Your task to perform on an android device: open app "TextNow: Call + Text Unlimited" Image 0: 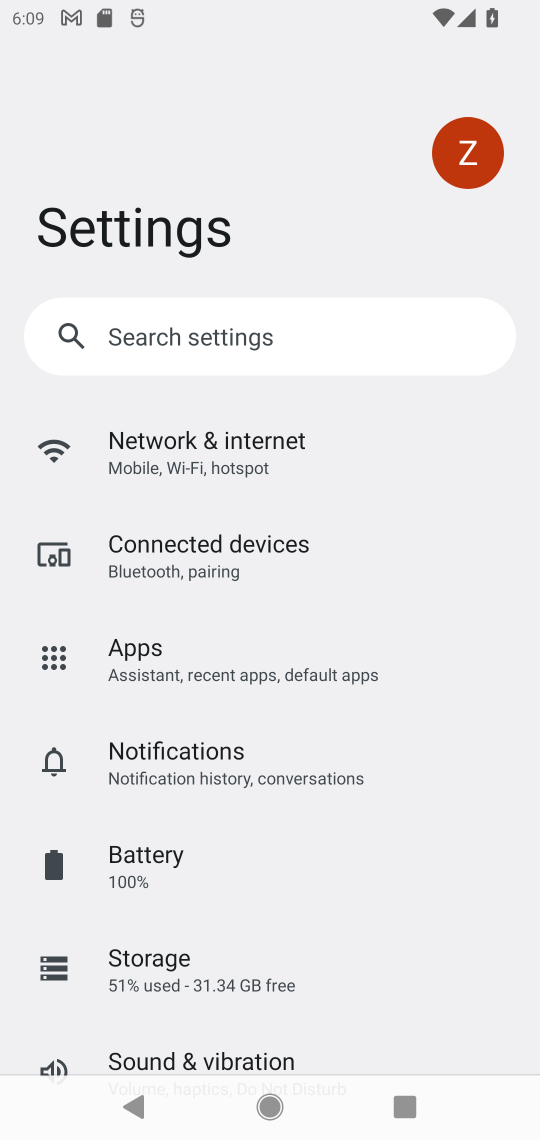
Step 0: press back button
Your task to perform on an android device: open app "TextNow: Call + Text Unlimited" Image 1: 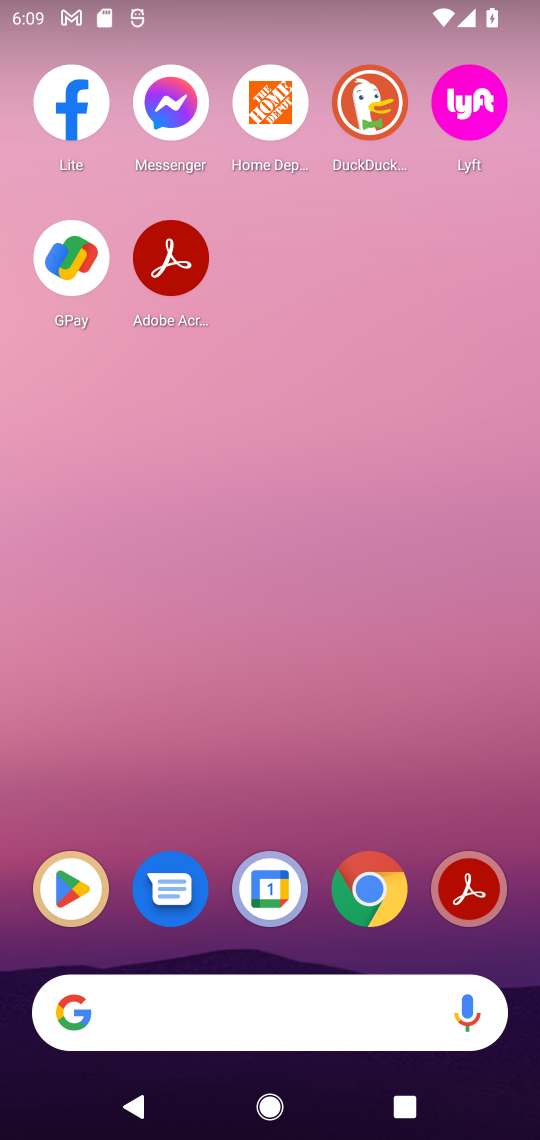
Step 1: drag from (400, 997) to (342, 197)
Your task to perform on an android device: open app "TextNow: Call + Text Unlimited" Image 2: 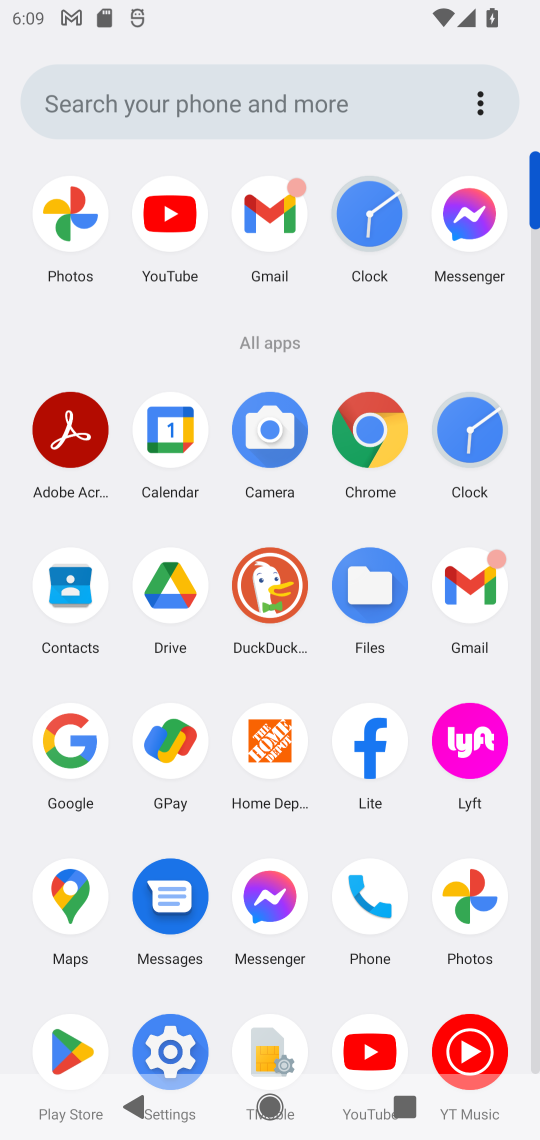
Step 2: drag from (307, 654) to (307, 456)
Your task to perform on an android device: open app "TextNow: Call + Text Unlimited" Image 3: 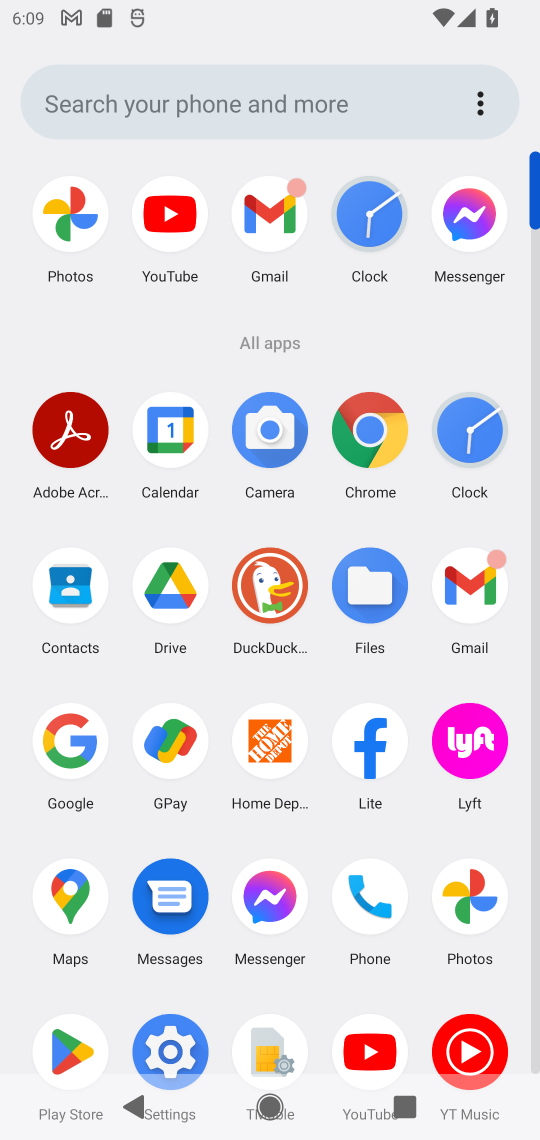
Step 3: drag from (309, 770) to (324, 344)
Your task to perform on an android device: open app "TextNow: Call + Text Unlimited" Image 4: 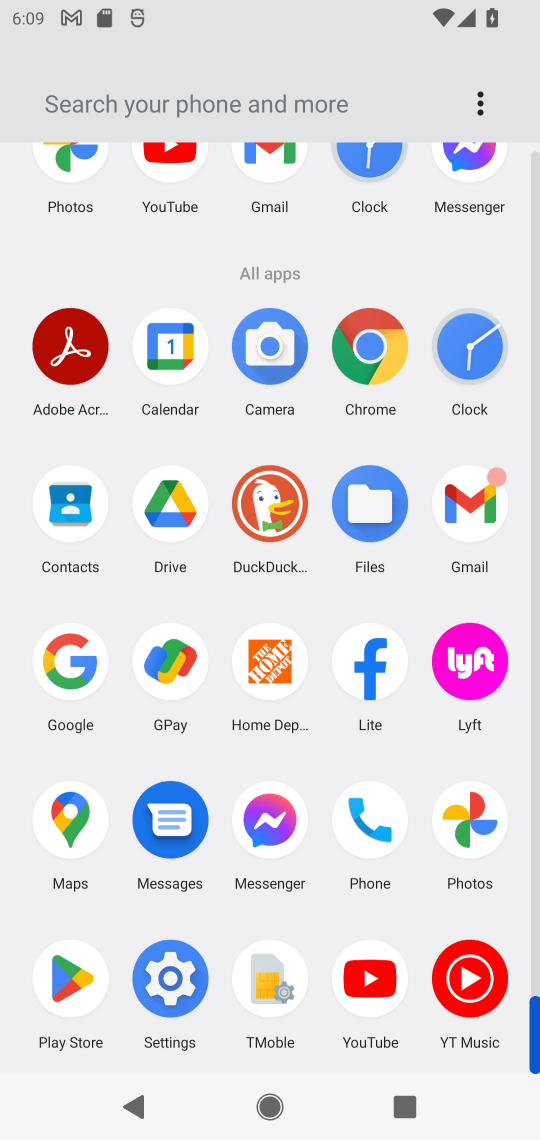
Step 4: drag from (274, 613) to (308, 363)
Your task to perform on an android device: open app "TextNow: Call + Text Unlimited" Image 5: 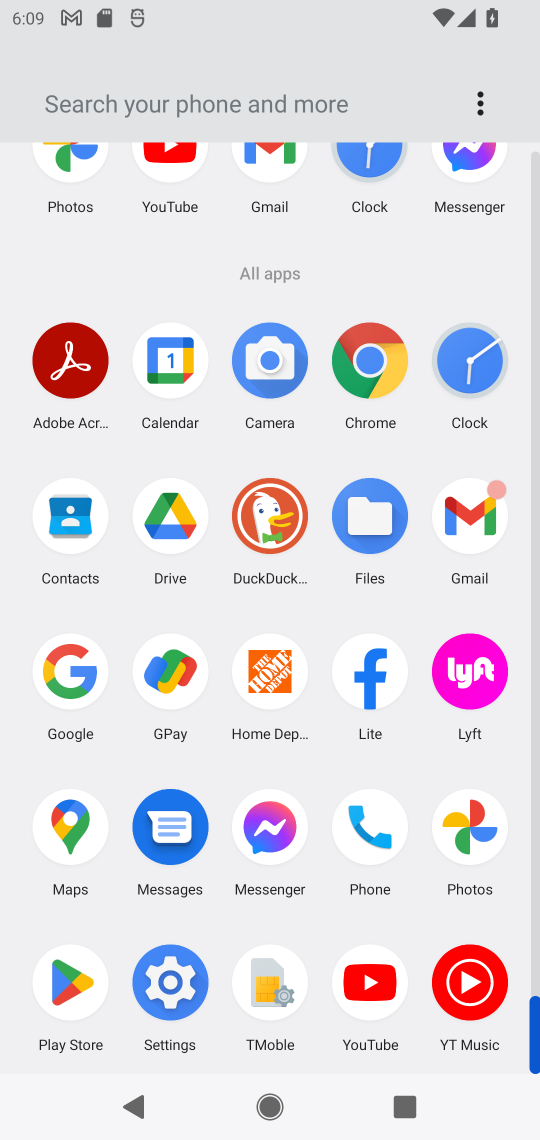
Step 5: click (64, 991)
Your task to perform on an android device: open app "TextNow: Call + Text Unlimited" Image 6: 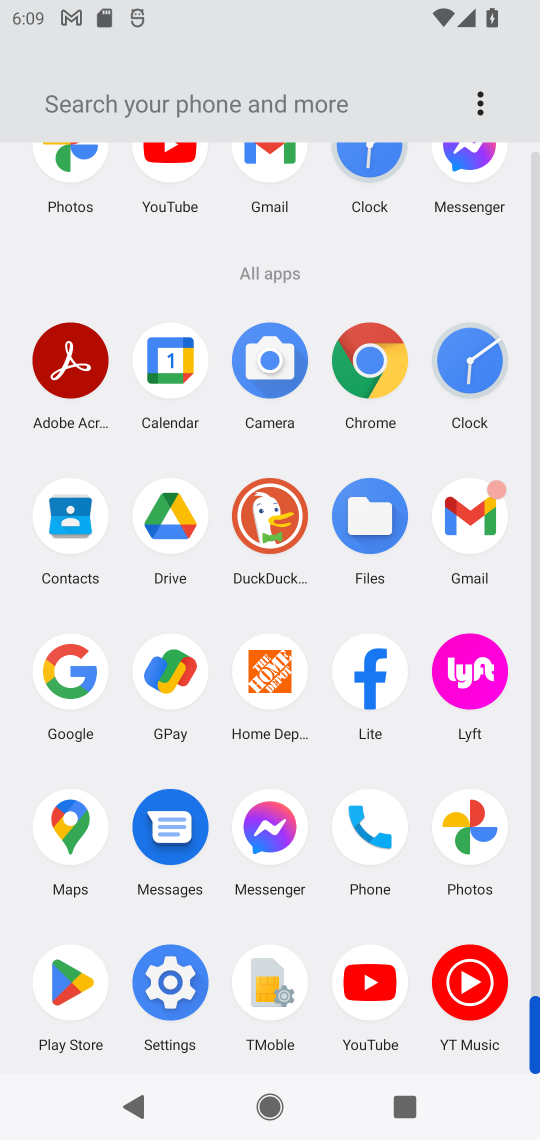
Step 6: click (62, 991)
Your task to perform on an android device: open app "TextNow: Call + Text Unlimited" Image 7: 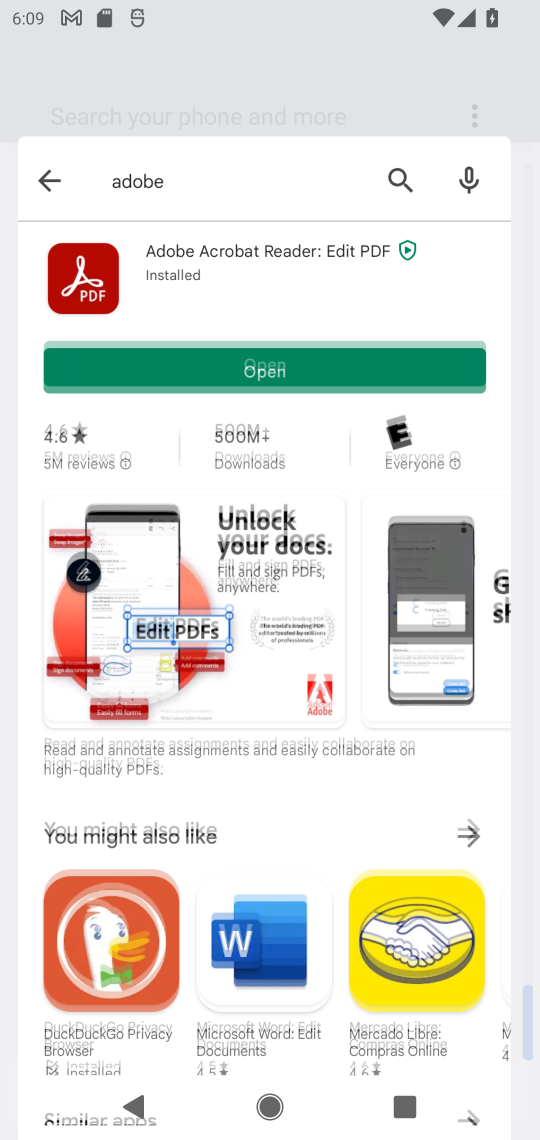
Step 7: click (63, 991)
Your task to perform on an android device: open app "TextNow: Call + Text Unlimited" Image 8: 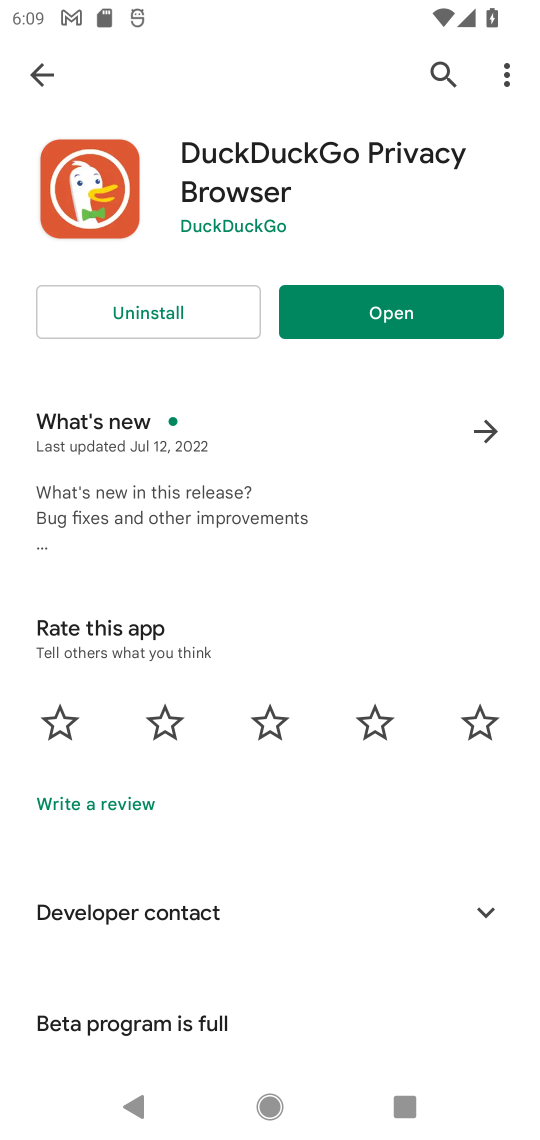
Step 8: click (42, 66)
Your task to perform on an android device: open app "TextNow: Call + Text Unlimited" Image 9: 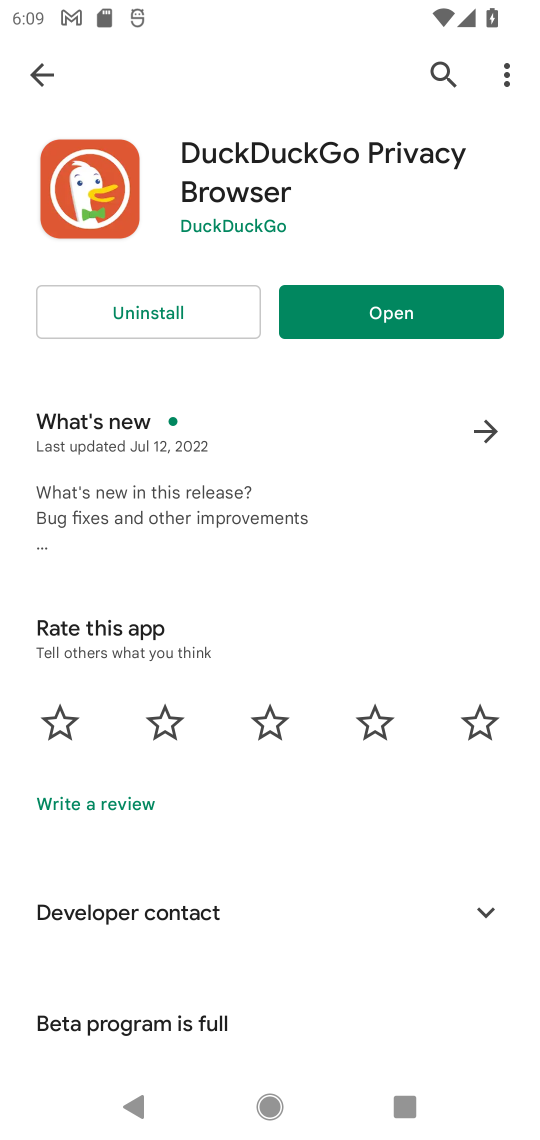
Step 9: click (41, 71)
Your task to perform on an android device: open app "TextNow: Call + Text Unlimited" Image 10: 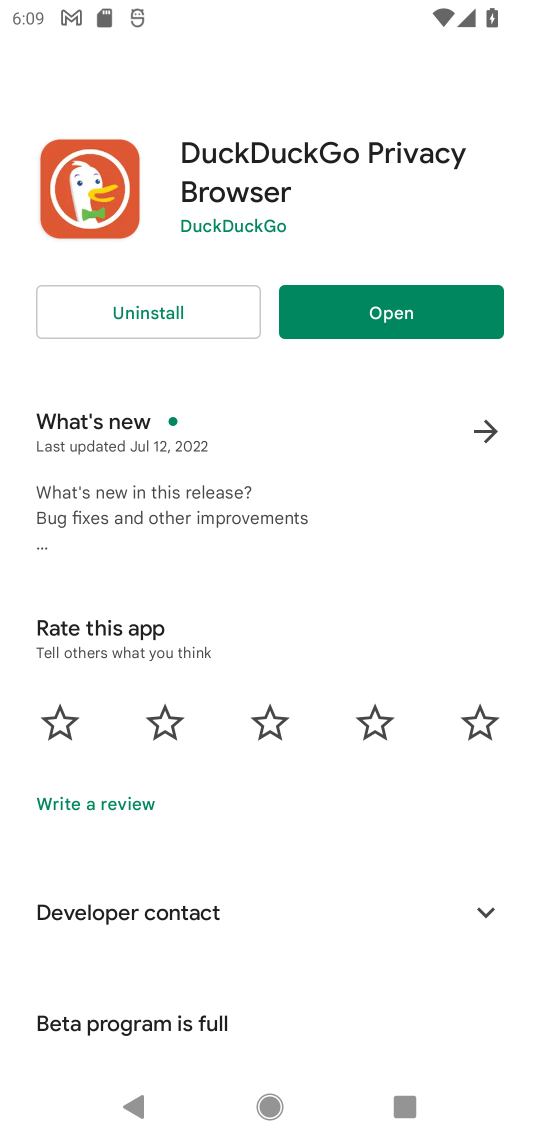
Step 10: click (41, 71)
Your task to perform on an android device: open app "TextNow: Call + Text Unlimited" Image 11: 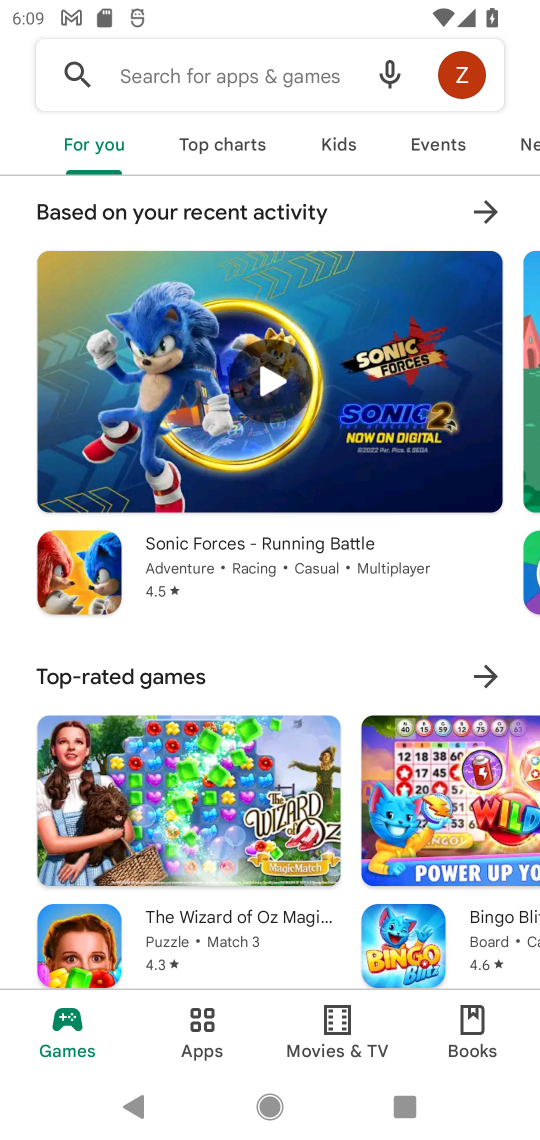
Step 11: click (167, 68)
Your task to perform on an android device: open app "TextNow: Call + Text Unlimited" Image 12: 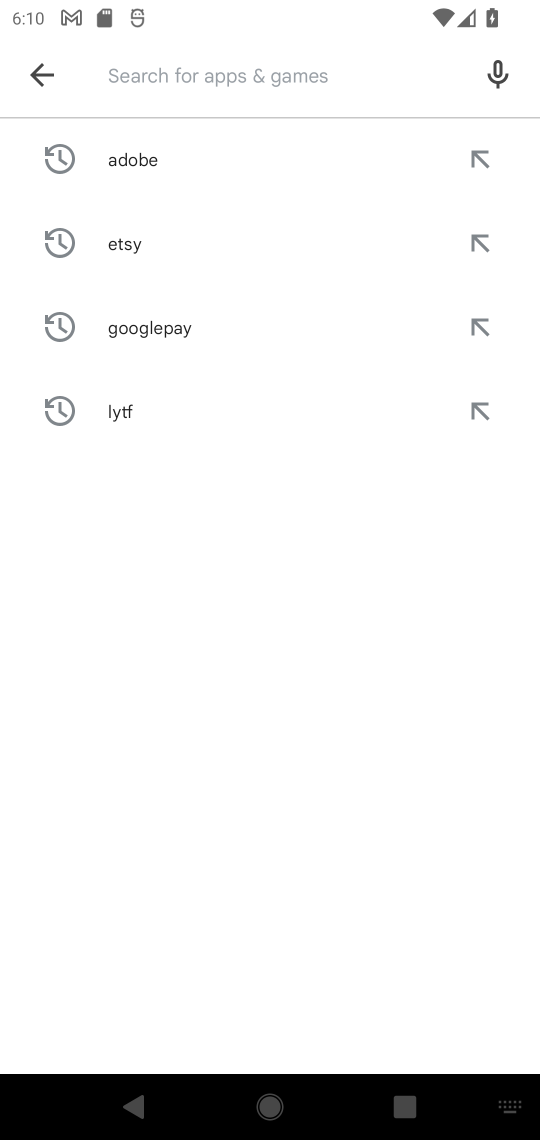
Step 12: type "Text"
Your task to perform on an android device: open app "TextNow: Call + Text Unlimited" Image 13: 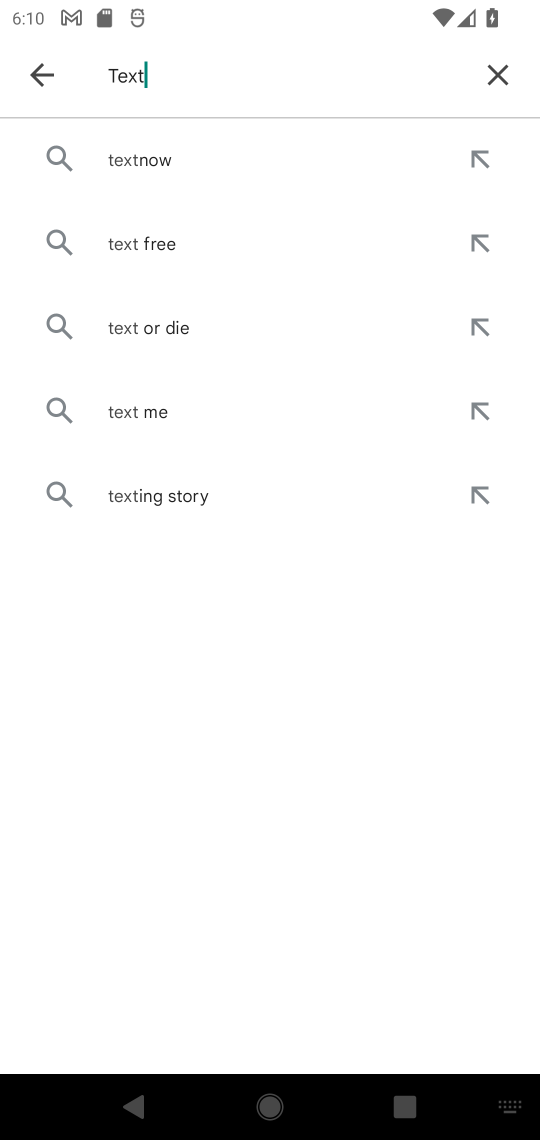
Step 13: click (154, 168)
Your task to perform on an android device: open app "TextNow: Call + Text Unlimited" Image 14: 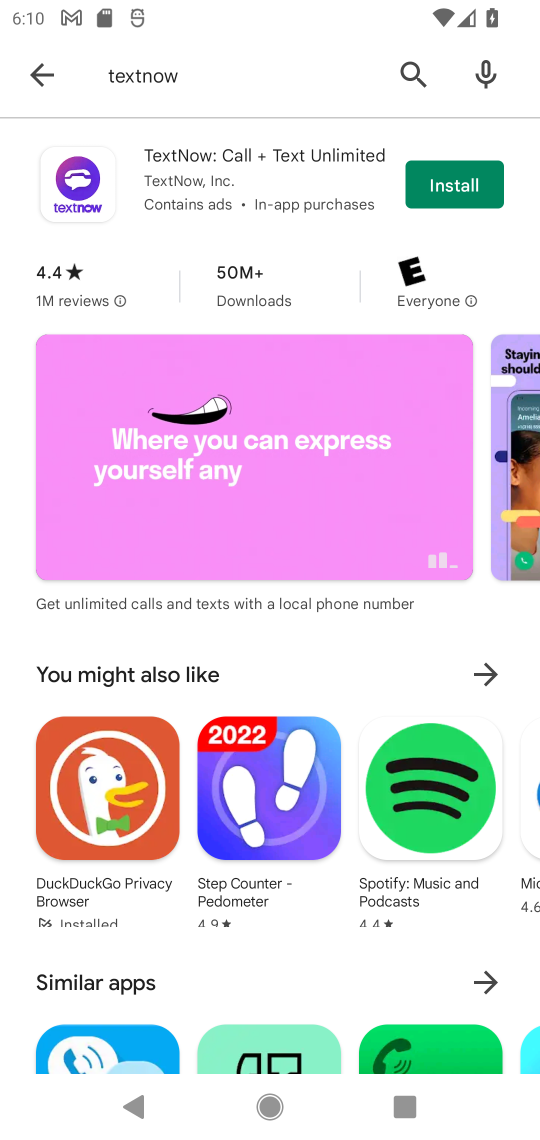
Step 14: click (439, 187)
Your task to perform on an android device: open app "TextNow: Call + Text Unlimited" Image 15: 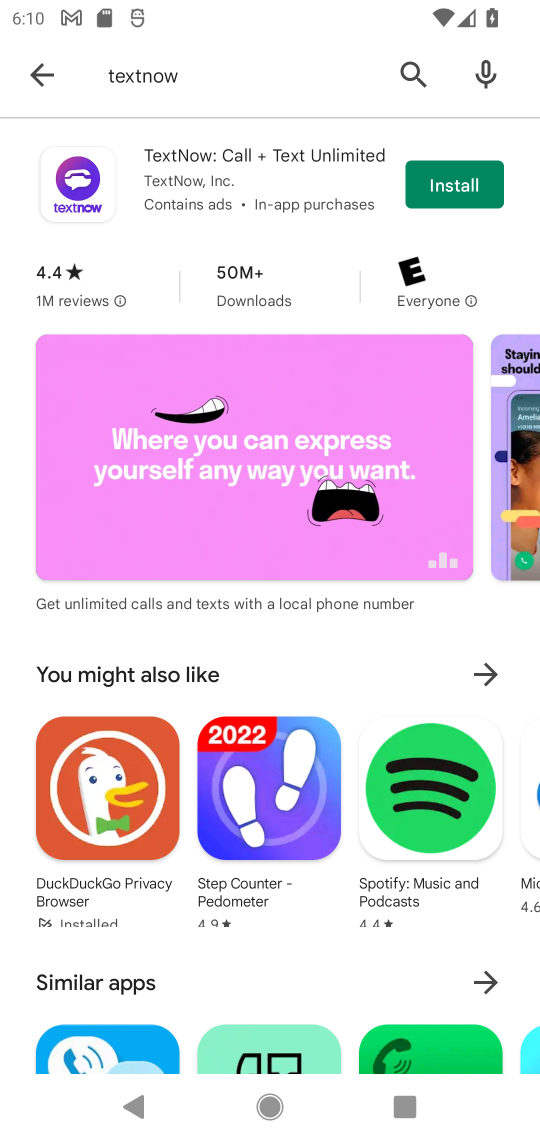
Step 15: click (441, 187)
Your task to perform on an android device: open app "TextNow: Call + Text Unlimited" Image 16: 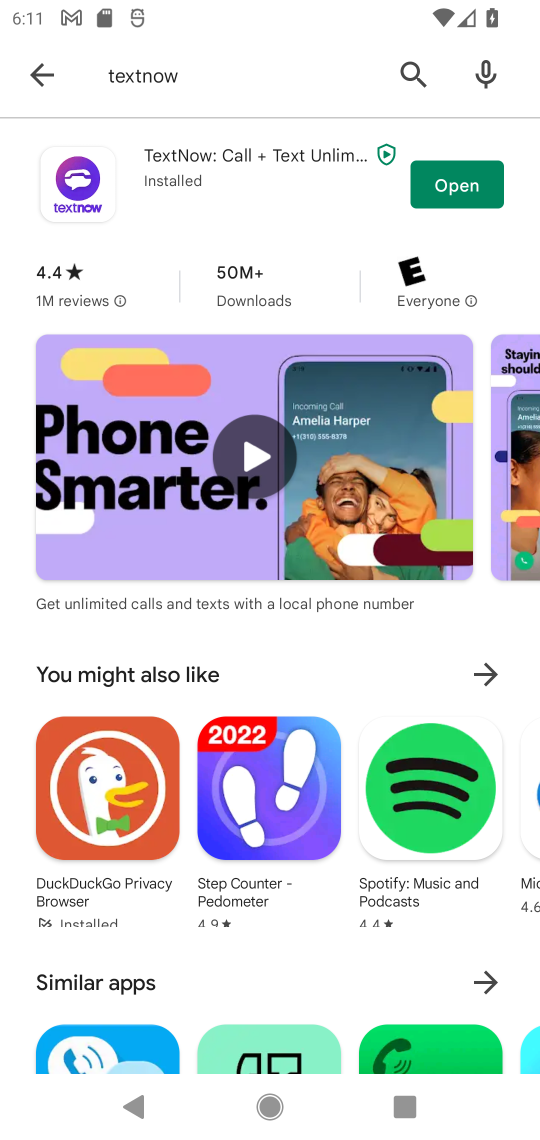
Step 16: click (451, 190)
Your task to perform on an android device: open app "TextNow: Call + Text Unlimited" Image 17: 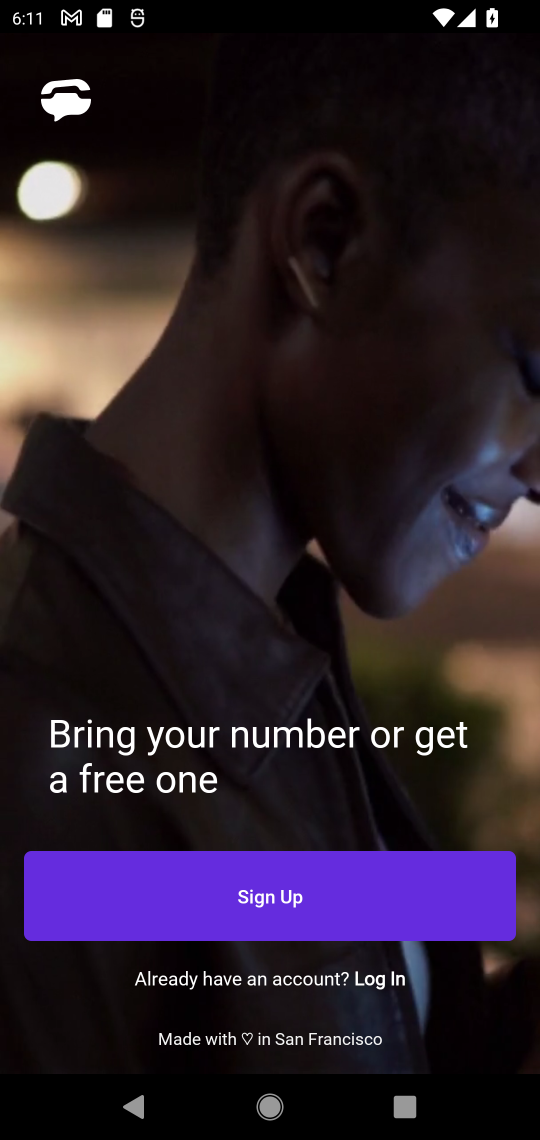
Step 17: task complete